Your task to perform on an android device: check android version Image 0: 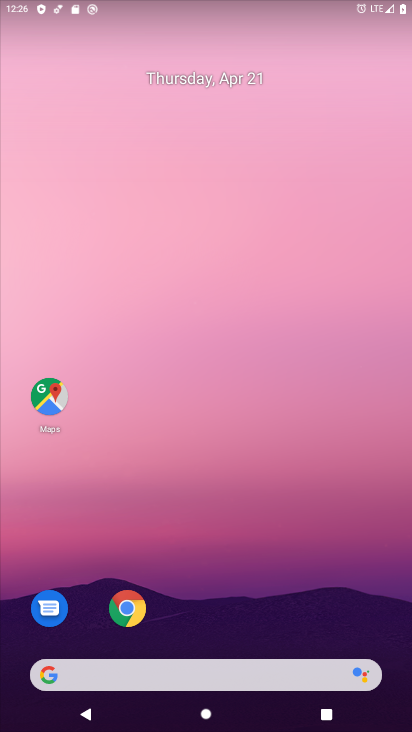
Step 0: drag from (210, 390) to (218, 131)
Your task to perform on an android device: check android version Image 1: 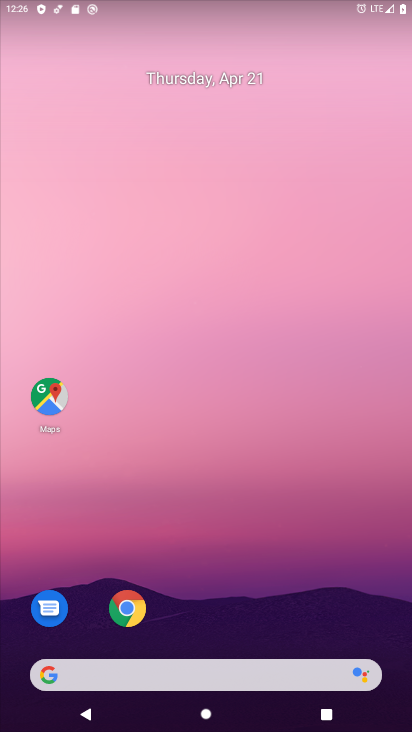
Step 1: drag from (219, 646) to (250, 149)
Your task to perform on an android device: check android version Image 2: 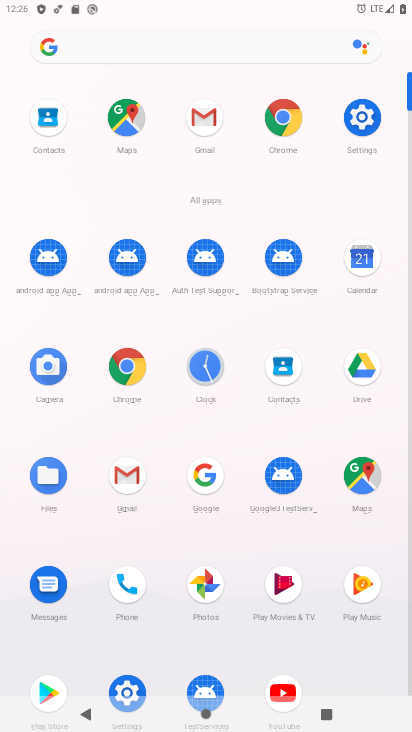
Step 2: click (355, 123)
Your task to perform on an android device: check android version Image 3: 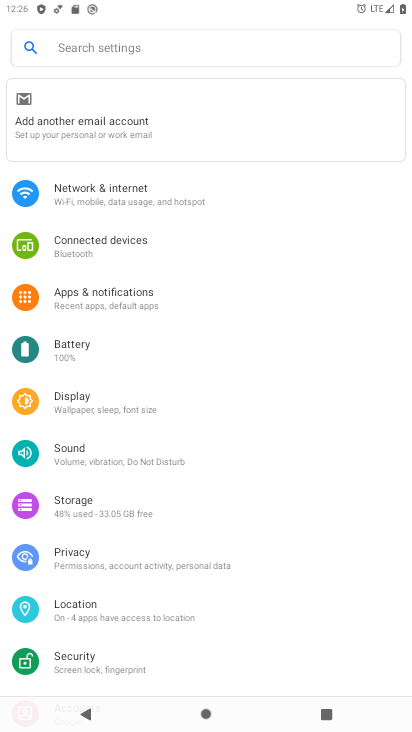
Step 3: drag from (200, 633) to (250, 144)
Your task to perform on an android device: check android version Image 4: 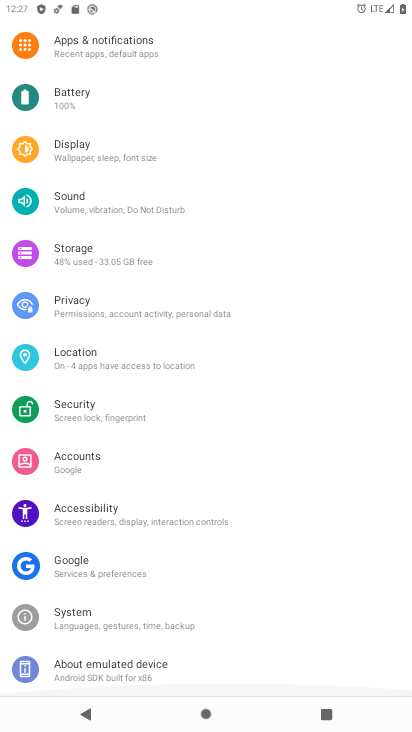
Step 4: drag from (200, 631) to (247, 224)
Your task to perform on an android device: check android version Image 5: 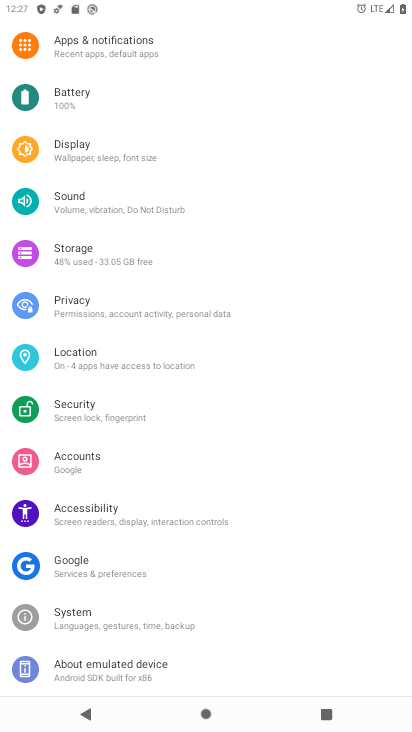
Step 5: click (141, 667)
Your task to perform on an android device: check android version Image 6: 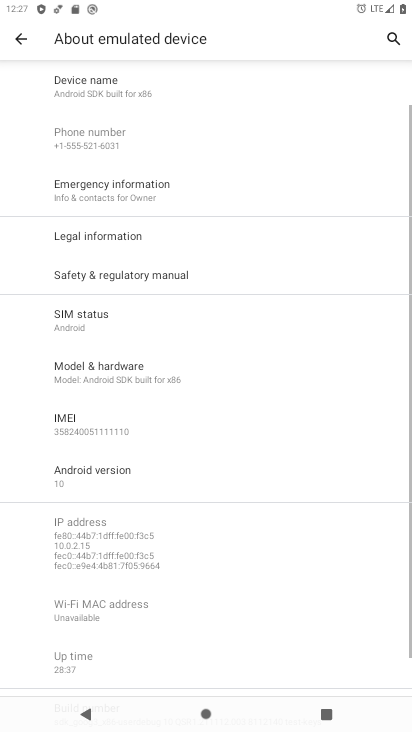
Step 6: click (111, 467)
Your task to perform on an android device: check android version Image 7: 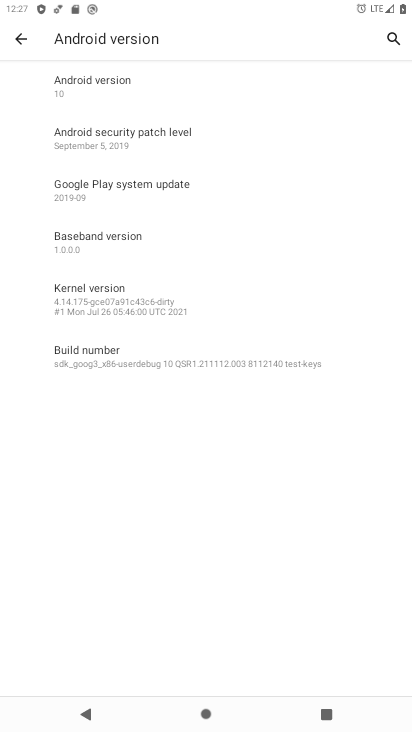
Step 7: click (162, 80)
Your task to perform on an android device: check android version Image 8: 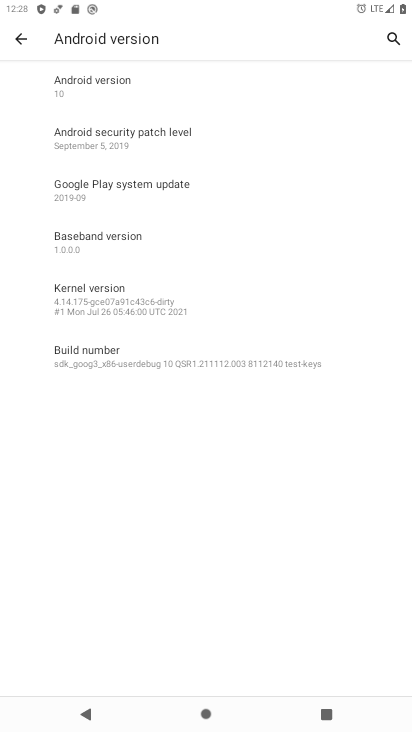
Step 8: click (92, 82)
Your task to perform on an android device: check android version Image 9: 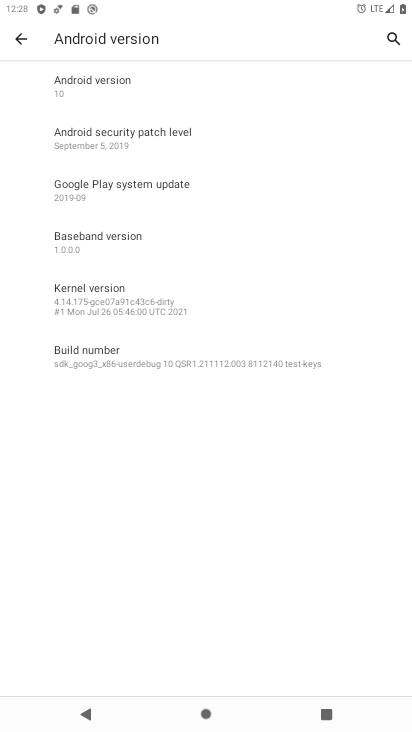
Step 9: task complete